Your task to perform on an android device: check battery use Image 0: 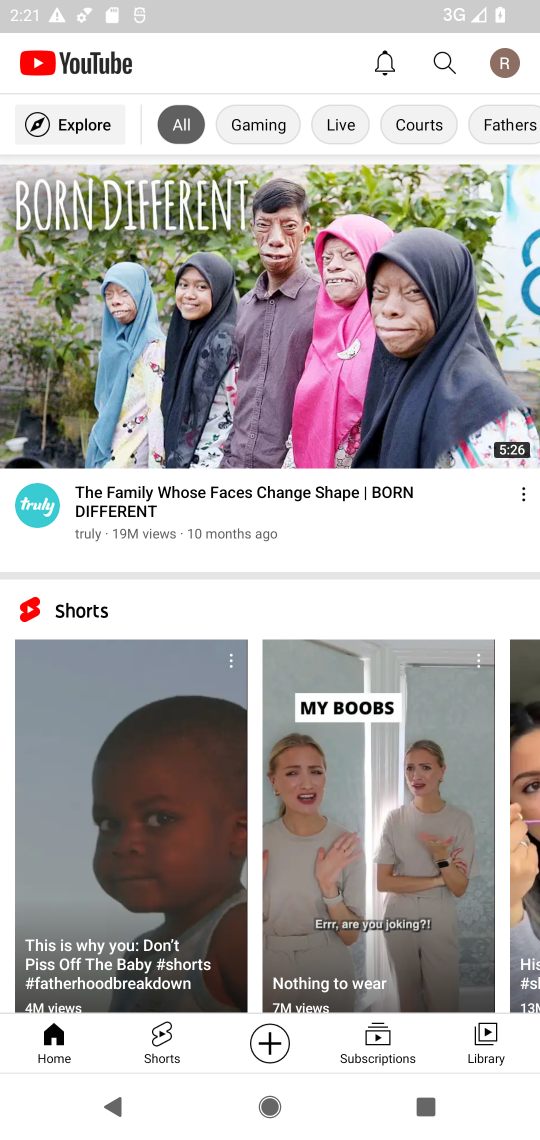
Step 0: press home button
Your task to perform on an android device: check battery use Image 1: 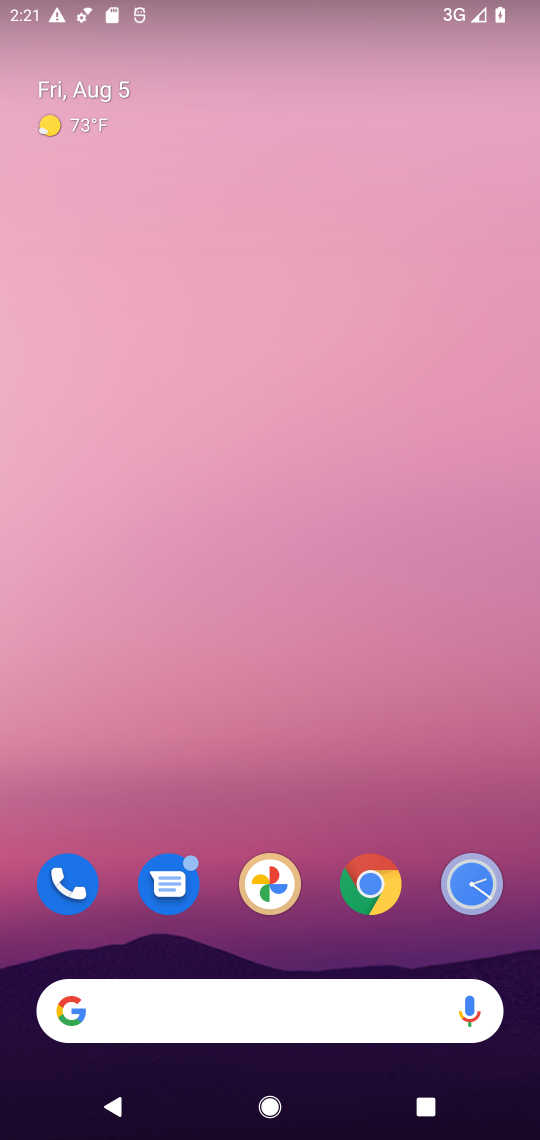
Step 1: drag from (490, 941) to (297, 3)
Your task to perform on an android device: check battery use Image 2: 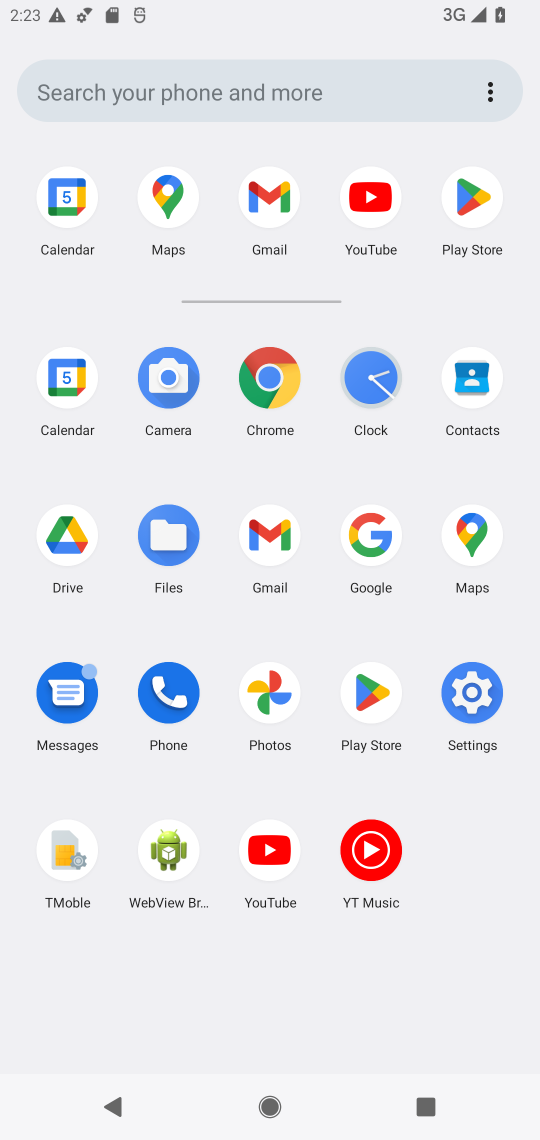
Step 2: click (476, 717)
Your task to perform on an android device: check battery use Image 3: 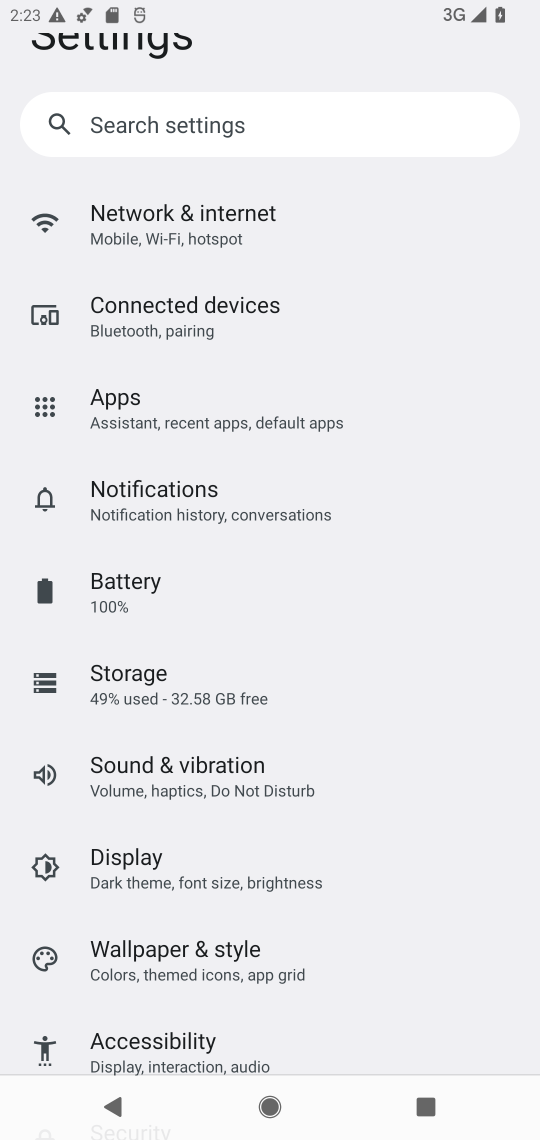
Step 3: click (129, 584)
Your task to perform on an android device: check battery use Image 4: 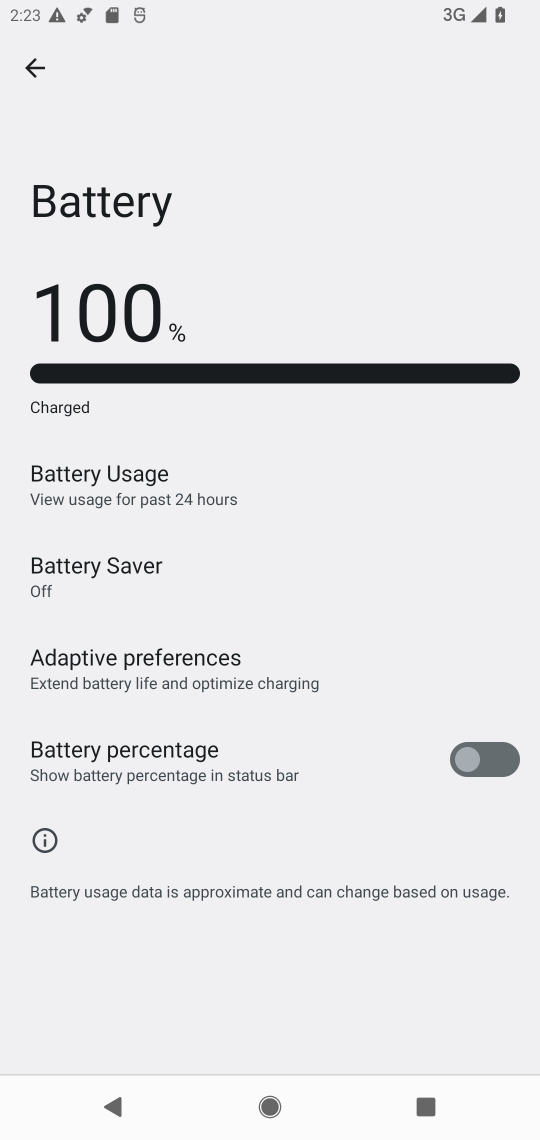
Step 4: click (80, 502)
Your task to perform on an android device: check battery use Image 5: 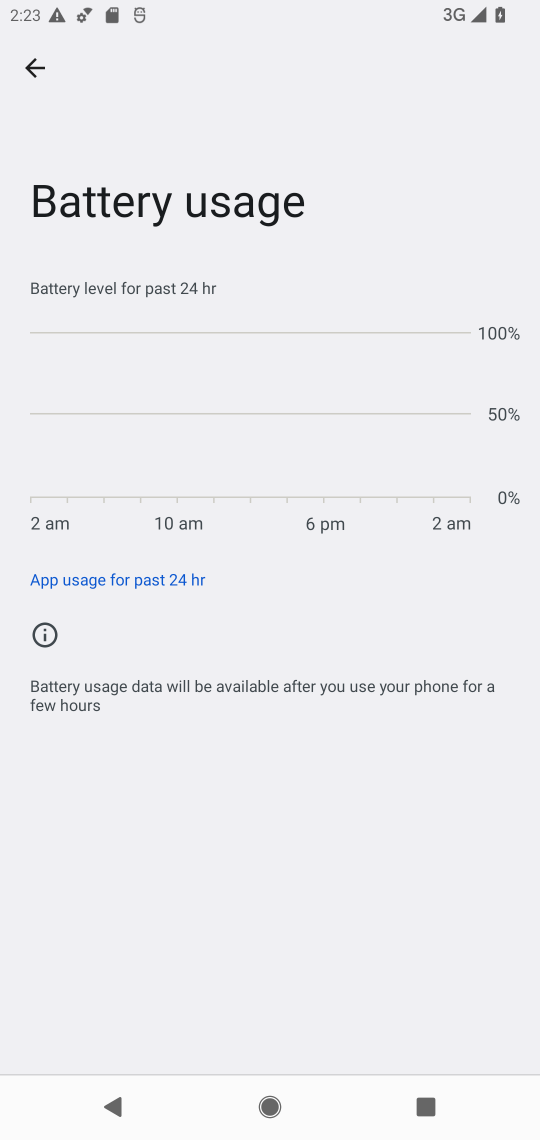
Step 5: task complete